Your task to perform on an android device: turn on location history Image 0: 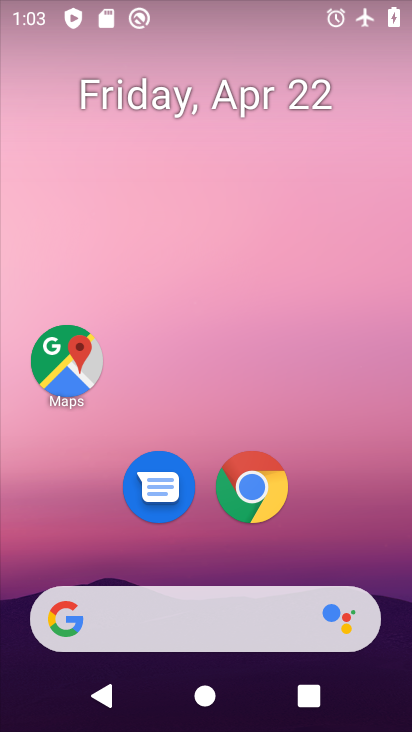
Step 0: drag from (220, 555) to (207, 78)
Your task to perform on an android device: turn on location history Image 1: 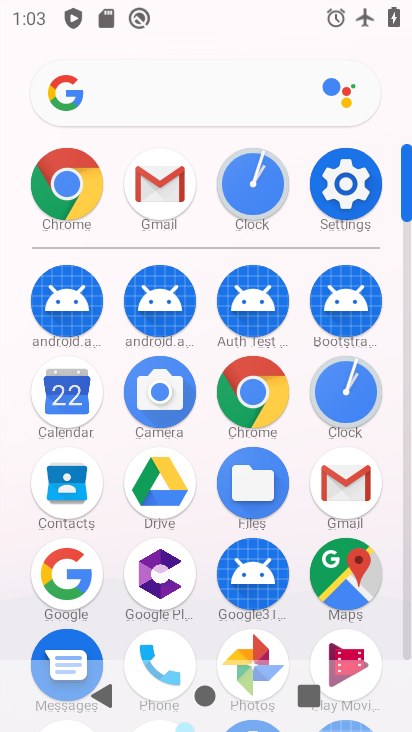
Step 1: click (336, 176)
Your task to perform on an android device: turn on location history Image 2: 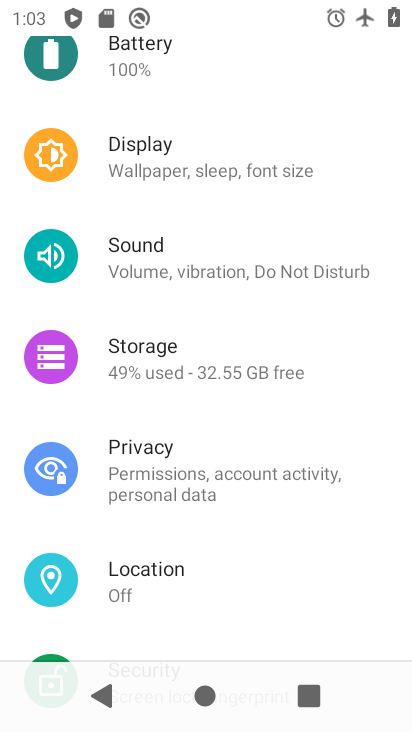
Step 2: click (158, 572)
Your task to perform on an android device: turn on location history Image 3: 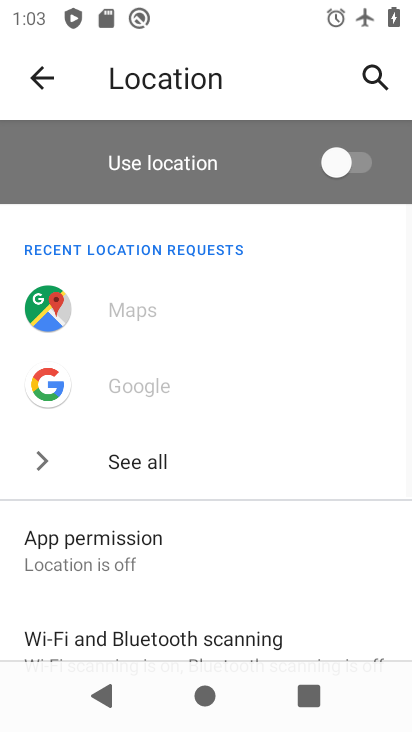
Step 3: drag from (215, 539) to (234, 158)
Your task to perform on an android device: turn on location history Image 4: 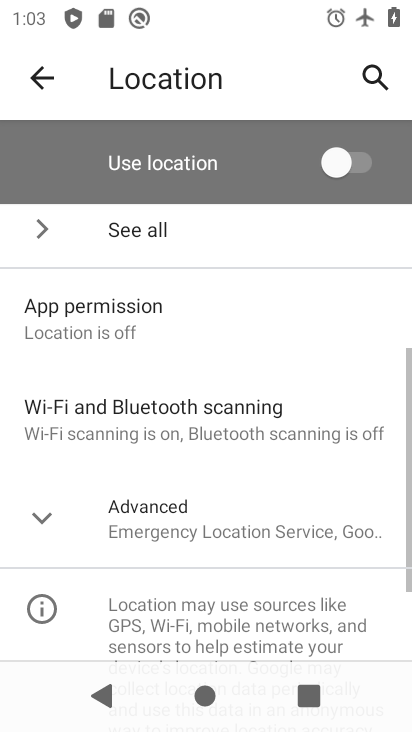
Step 4: drag from (236, 493) to (257, 309)
Your task to perform on an android device: turn on location history Image 5: 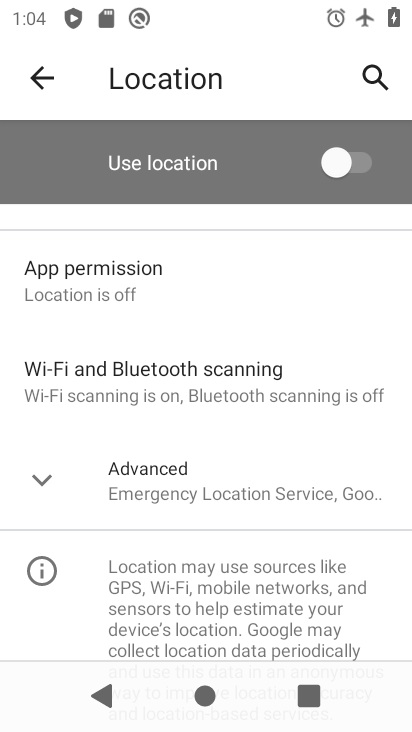
Step 5: click (175, 491)
Your task to perform on an android device: turn on location history Image 6: 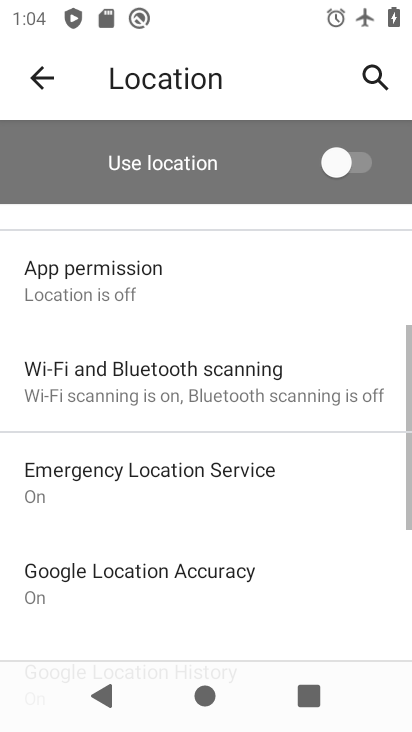
Step 6: drag from (266, 533) to (286, 319)
Your task to perform on an android device: turn on location history Image 7: 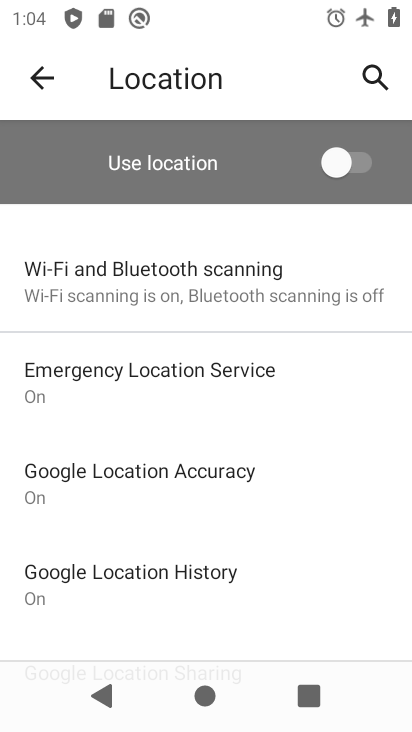
Step 7: drag from (250, 552) to (263, 415)
Your task to perform on an android device: turn on location history Image 8: 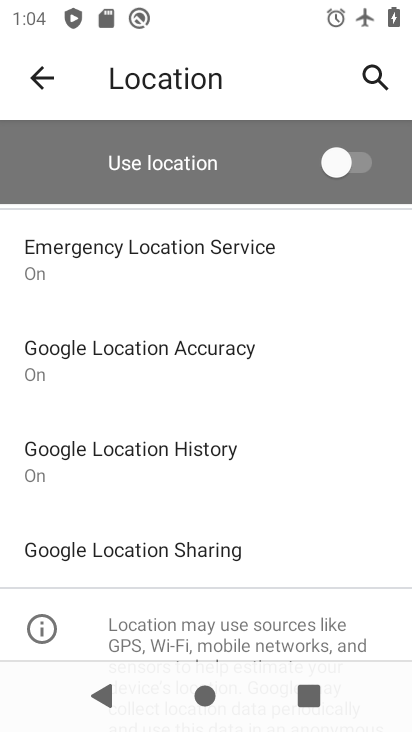
Step 8: click (129, 457)
Your task to perform on an android device: turn on location history Image 9: 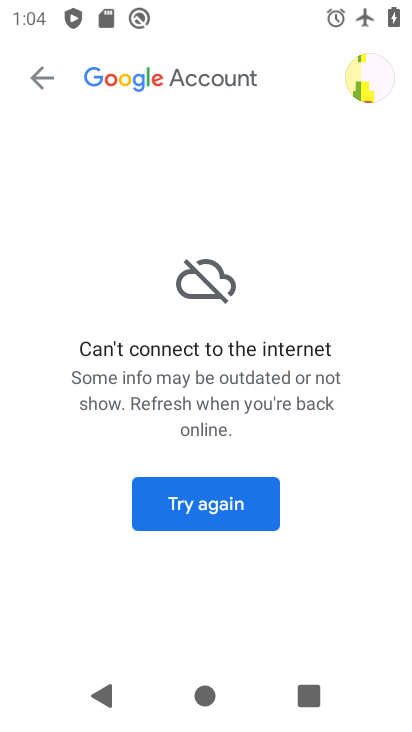
Step 9: task complete